Your task to perform on an android device: Go to sound settings Image 0: 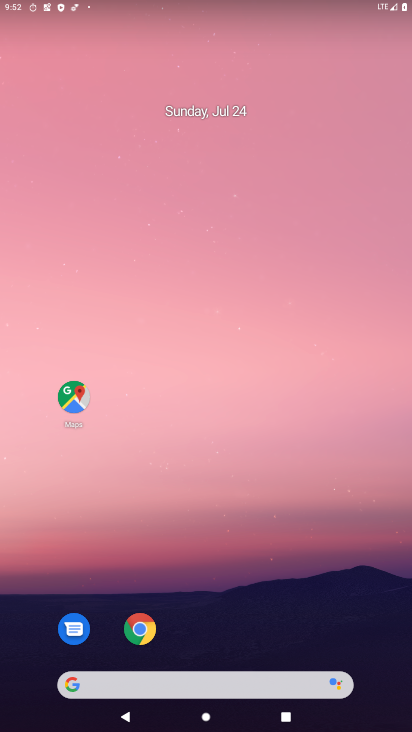
Step 0: press home button
Your task to perform on an android device: Go to sound settings Image 1: 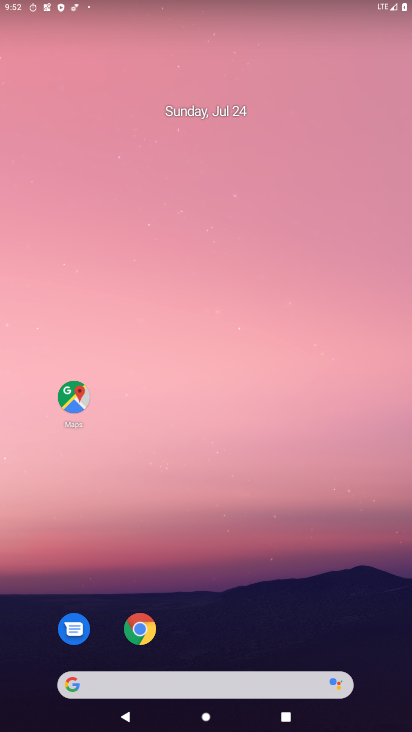
Step 1: drag from (265, 614) to (266, 58)
Your task to perform on an android device: Go to sound settings Image 2: 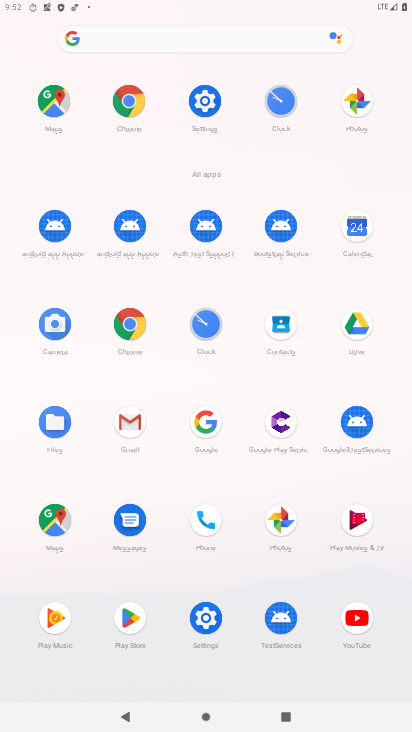
Step 2: click (210, 107)
Your task to perform on an android device: Go to sound settings Image 3: 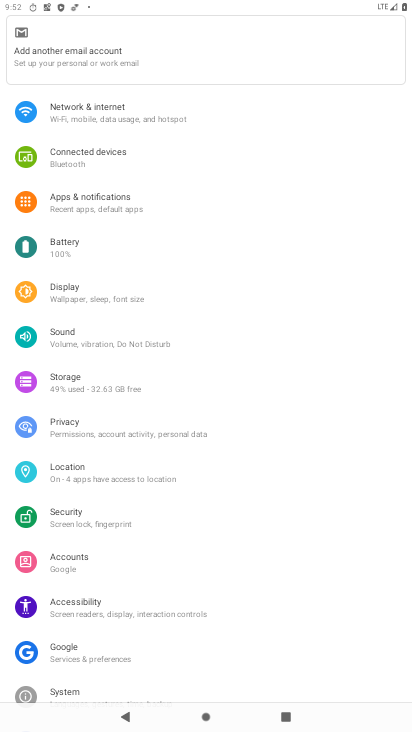
Step 3: click (126, 339)
Your task to perform on an android device: Go to sound settings Image 4: 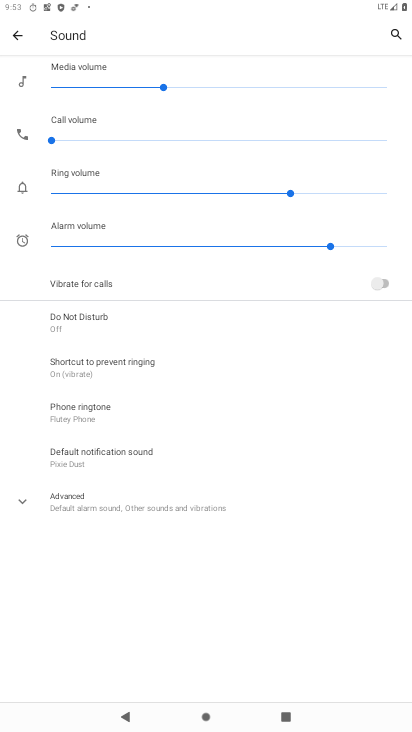
Step 4: task complete